Your task to perform on an android device: turn off sleep mode Image 0: 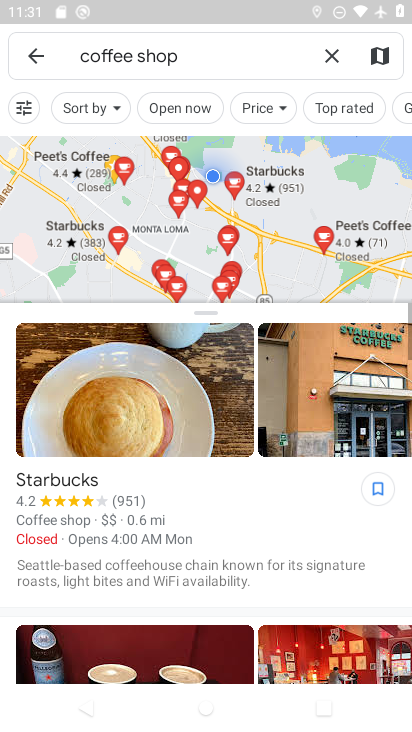
Step 0: press home button
Your task to perform on an android device: turn off sleep mode Image 1: 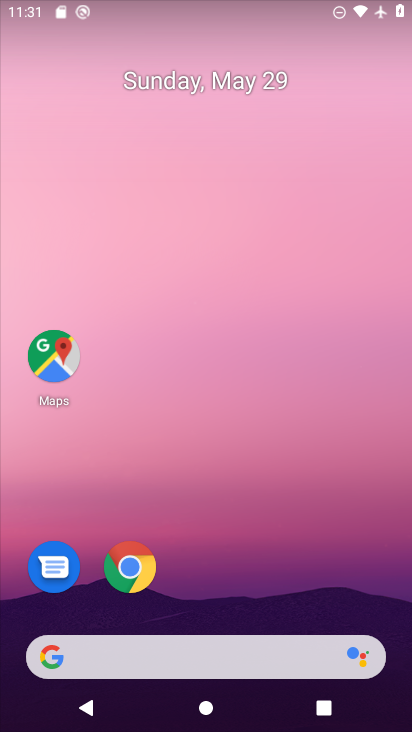
Step 1: drag from (387, 616) to (332, 13)
Your task to perform on an android device: turn off sleep mode Image 2: 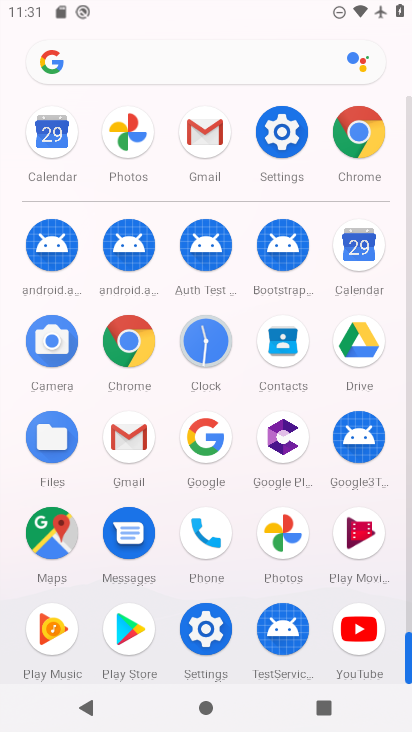
Step 2: click (205, 627)
Your task to perform on an android device: turn off sleep mode Image 3: 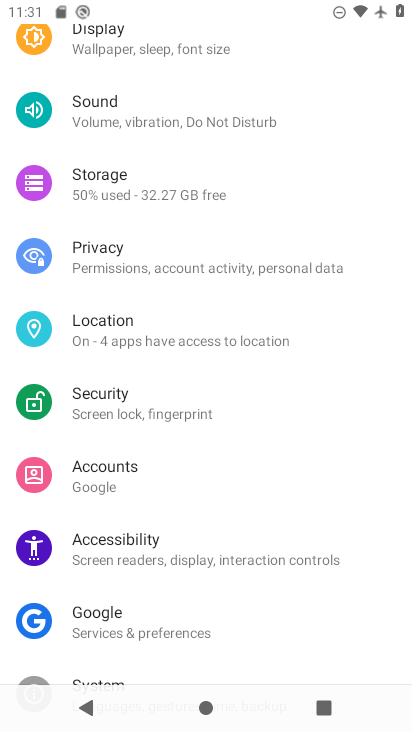
Step 3: drag from (342, 92) to (363, 432)
Your task to perform on an android device: turn off sleep mode Image 4: 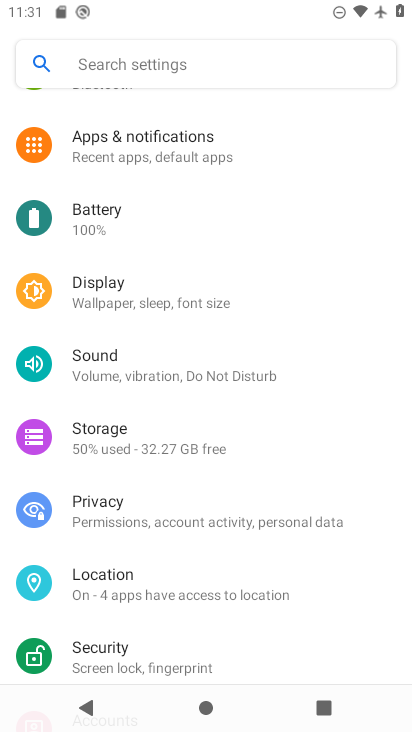
Step 4: click (105, 292)
Your task to perform on an android device: turn off sleep mode Image 5: 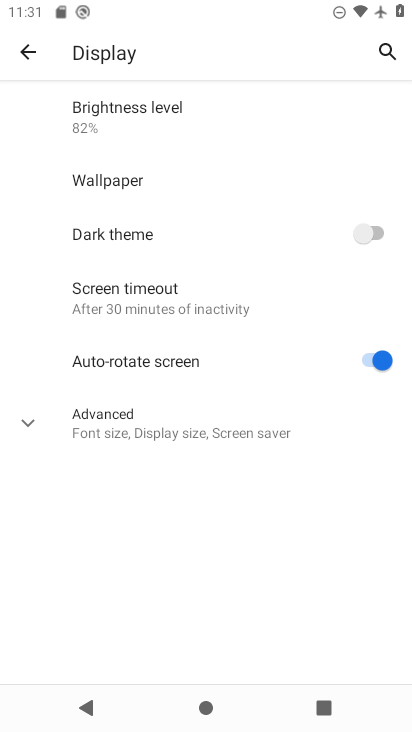
Step 5: click (31, 422)
Your task to perform on an android device: turn off sleep mode Image 6: 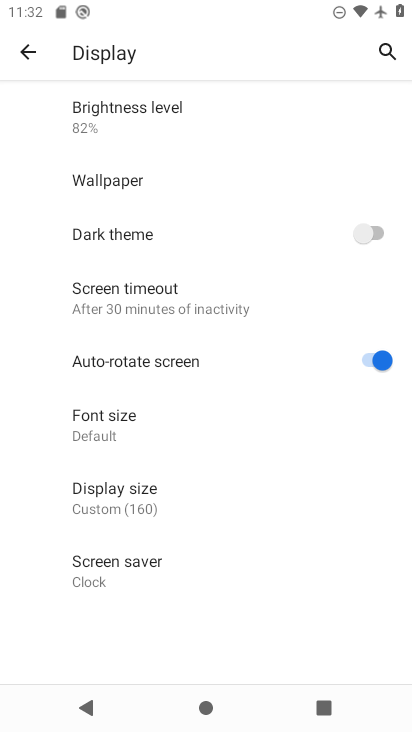
Step 6: task complete